Your task to perform on an android device: Open the map Image 0: 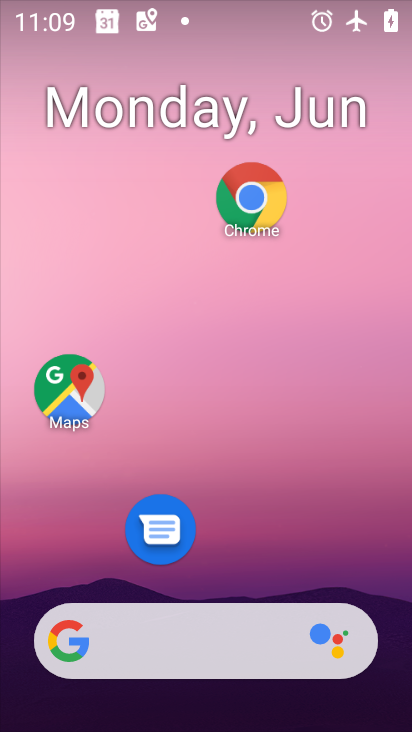
Step 0: click (54, 415)
Your task to perform on an android device: Open the map Image 1: 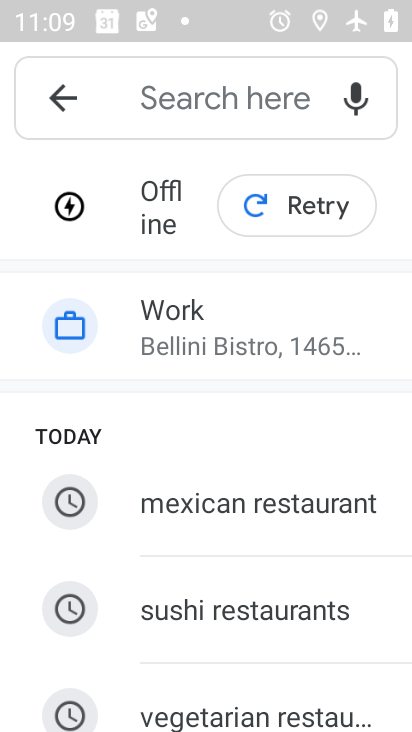
Step 1: task complete